Your task to perform on an android device: Go to calendar. Show me events next week Image 0: 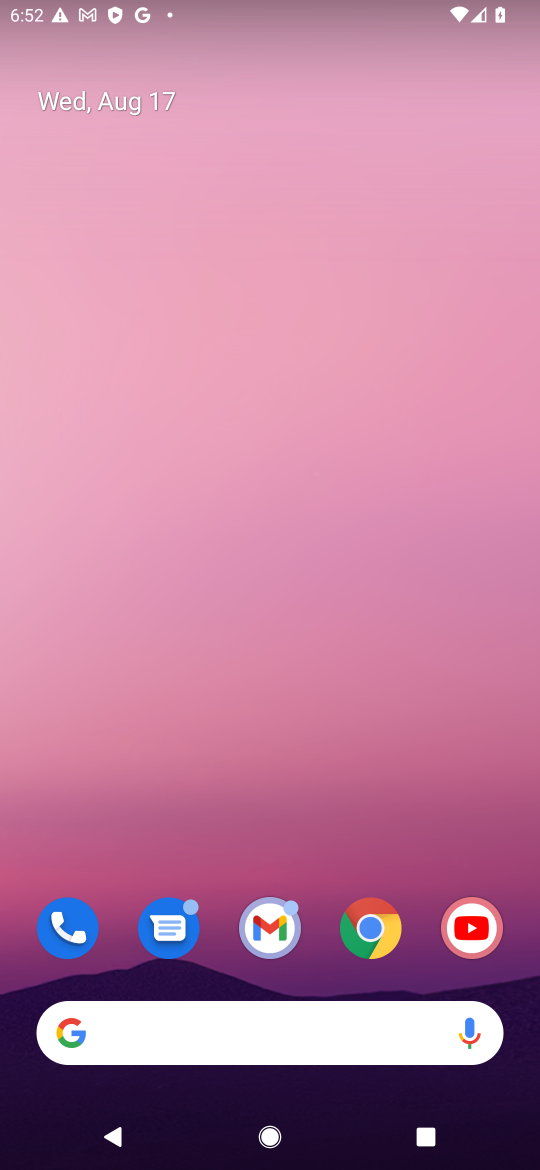
Step 0: drag from (220, 1018) to (193, 106)
Your task to perform on an android device: Go to calendar. Show me events next week Image 1: 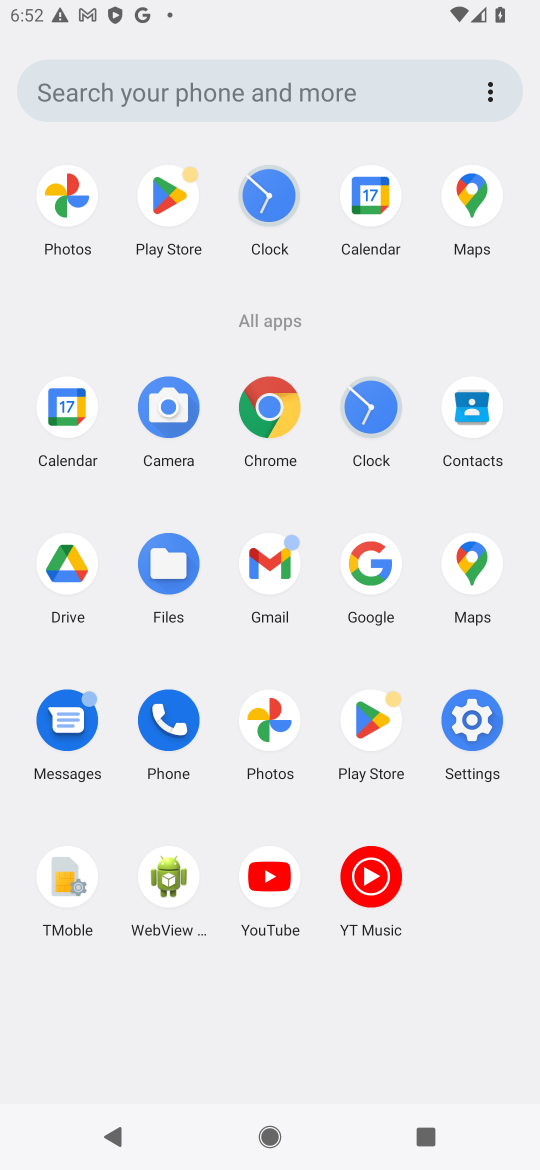
Step 1: click (375, 215)
Your task to perform on an android device: Go to calendar. Show me events next week Image 2: 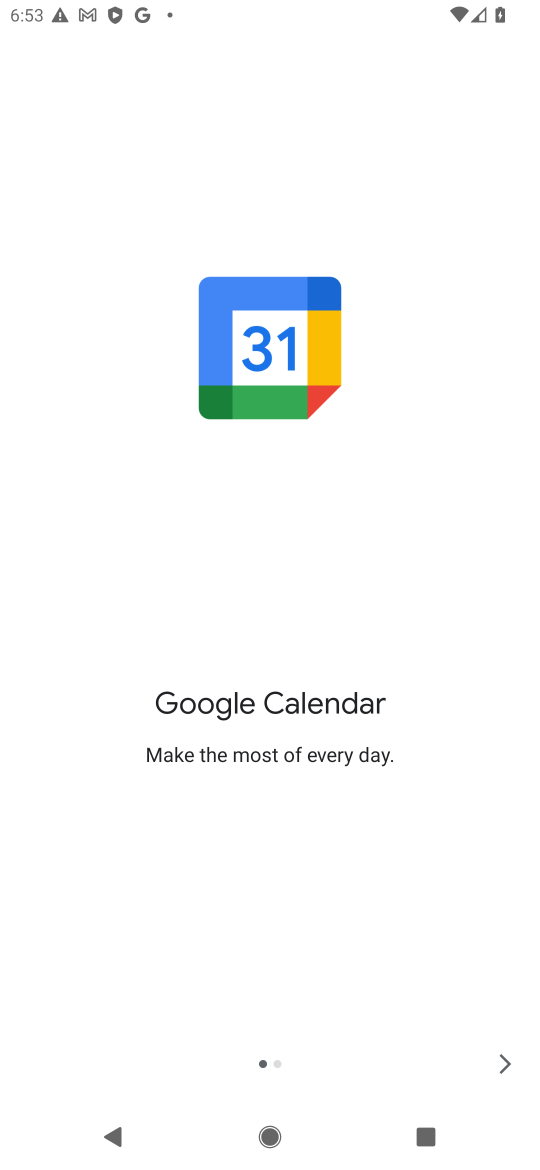
Step 2: click (496, 1067)
Your task to perform on an android device: Go to calendar. Show me events next week Image 3: 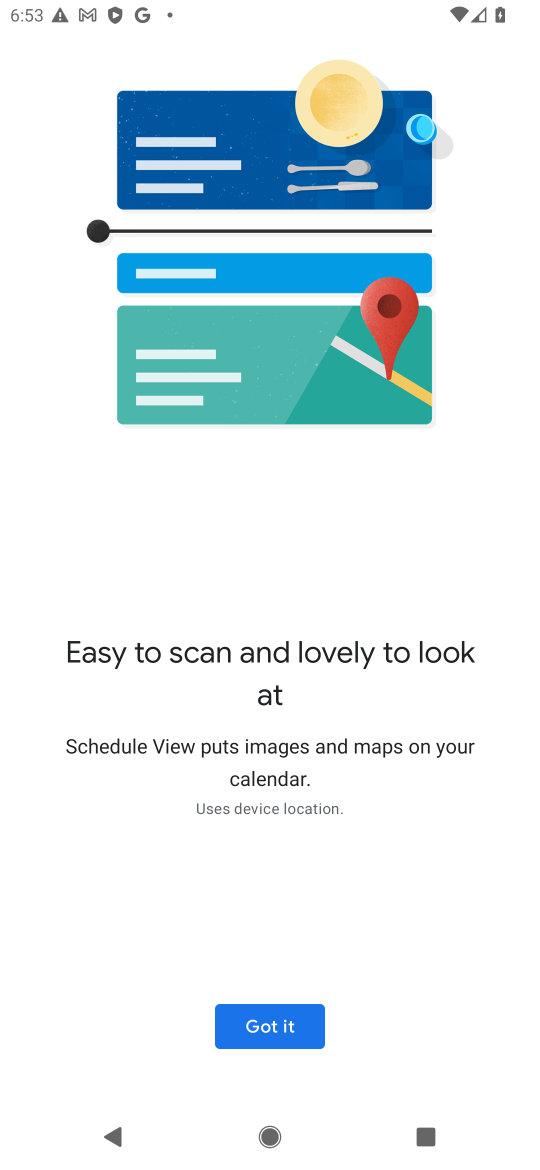
Step 3: click (288, 1037)
Your task to perform on an android device: Go to calendar. Show me events next week Image 4: 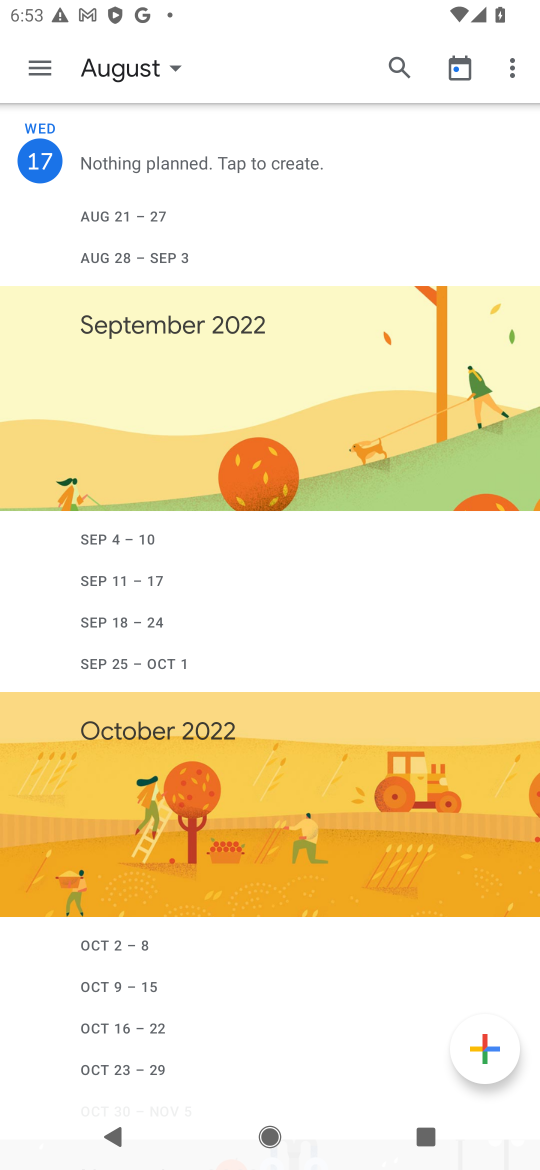
Step 4: click (29, 66)
Your task to perform on an android device: Go to calendar. Show me events next week Image 5: 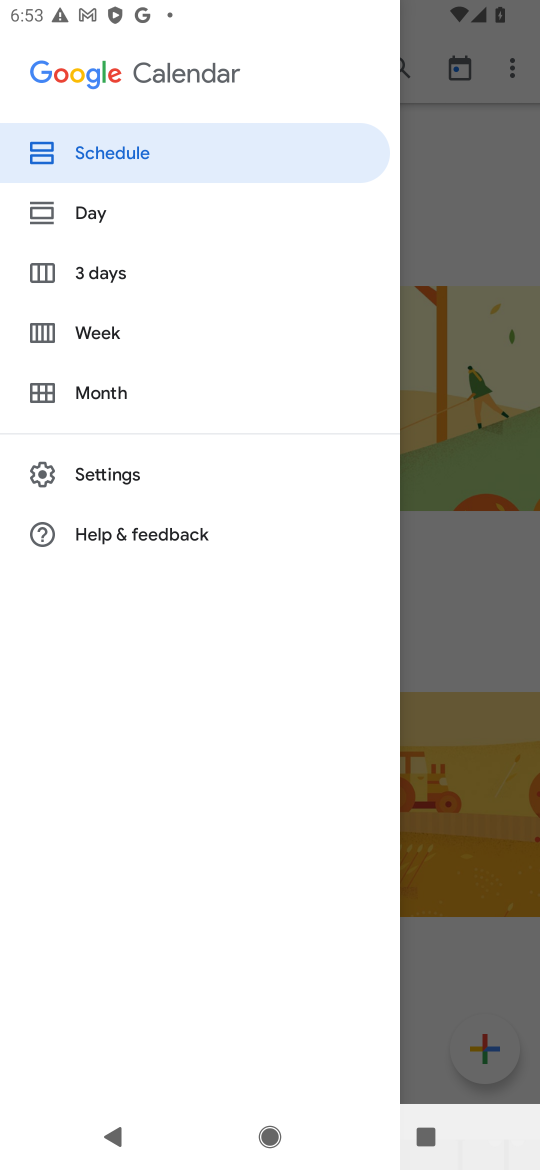
Step 5: click (111, 331)
Your task to perform on an android device: Go to calendar. Show me events next week Image 6: 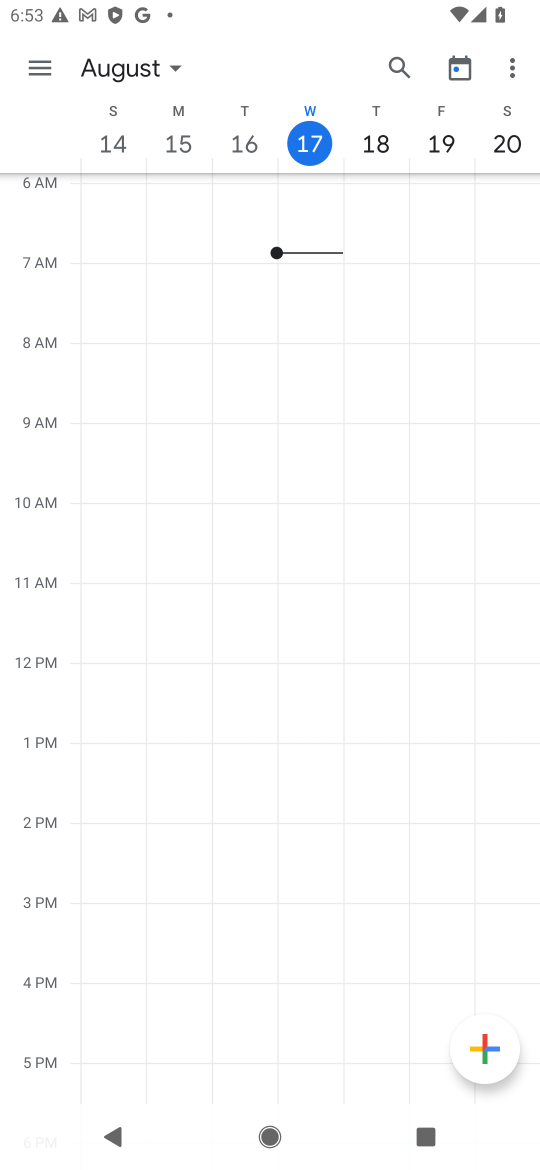
Step 6: task complete